Your task to perform on an android device: Open Google Chrome and click the shortcut for Amazon.com Image 0: 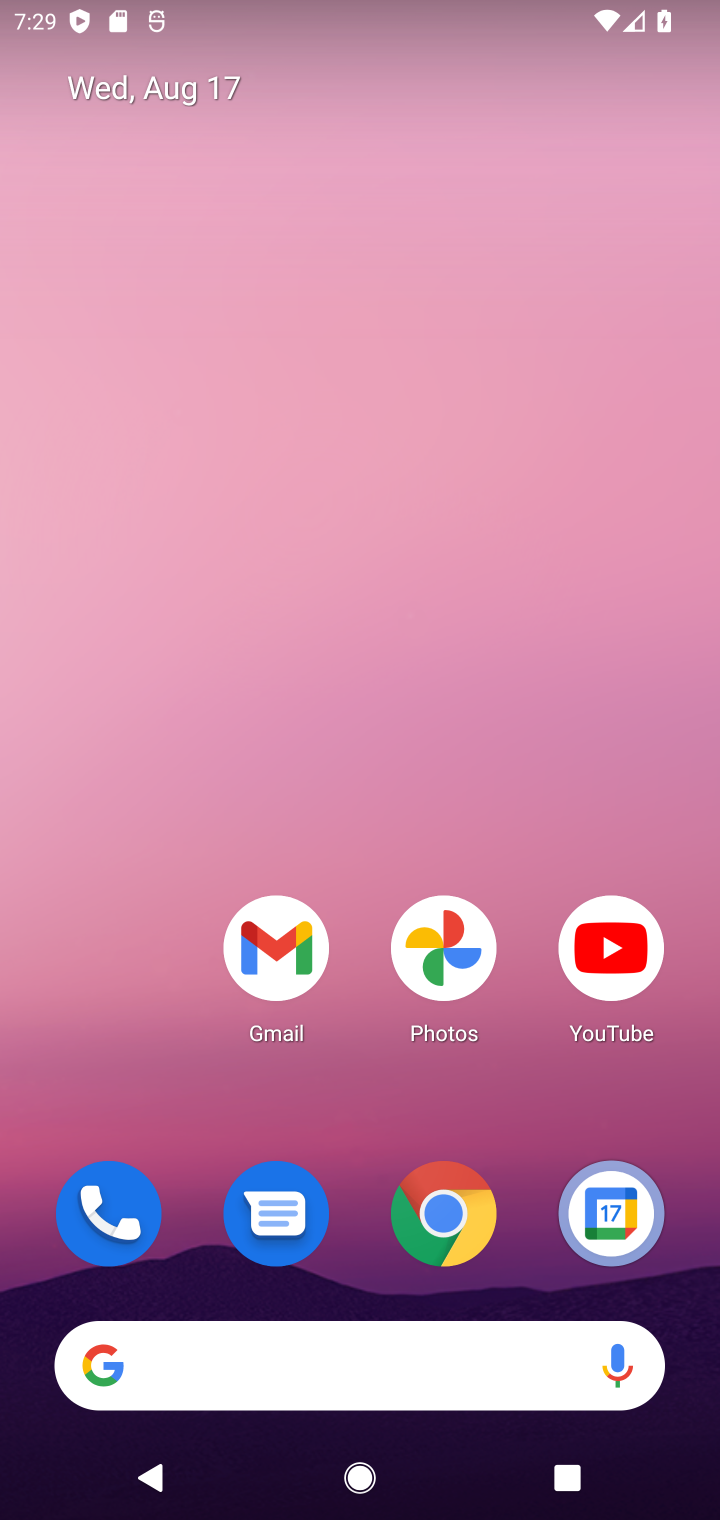
Step 0: click (383, 1255)
Your task to perform on an android device: Open Google Chrome and click the shortcut for Amazon.com Image 1: 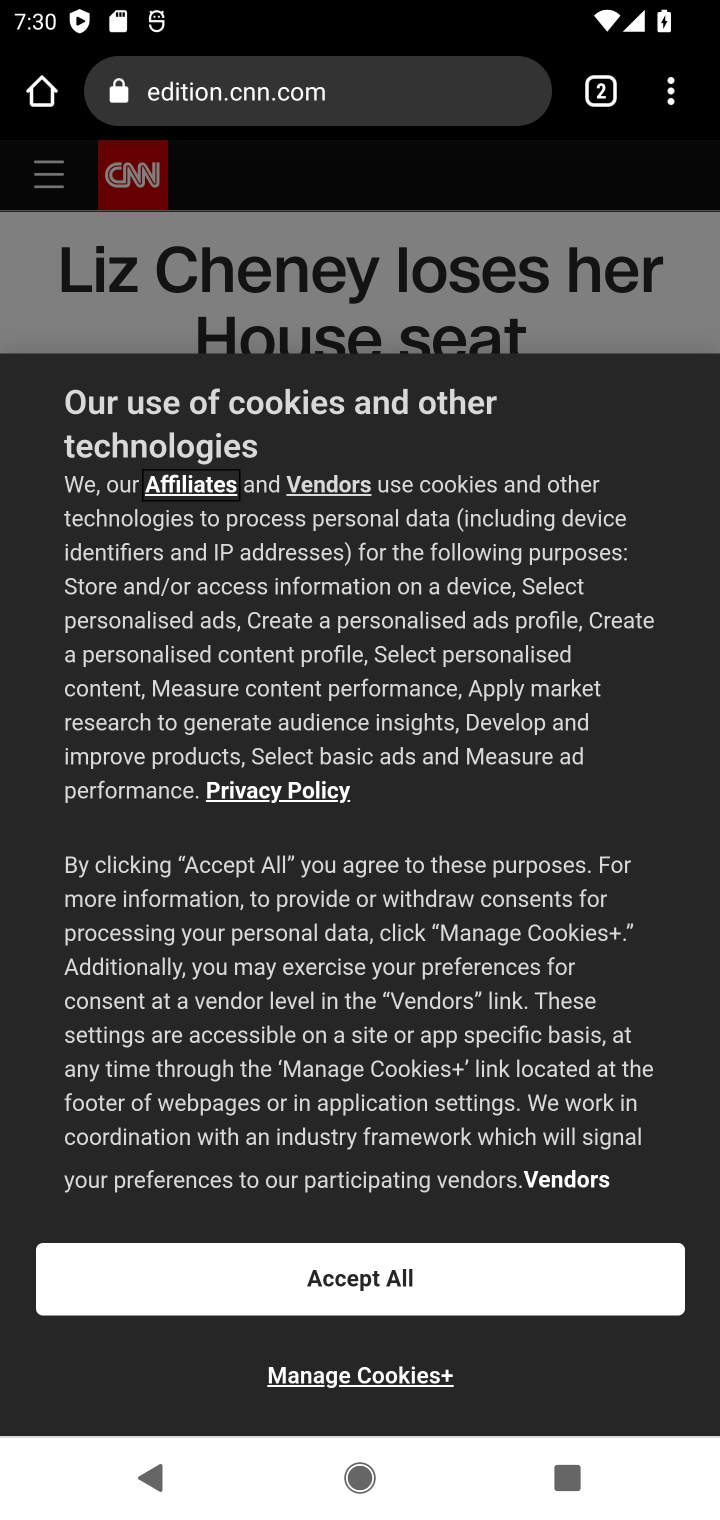
Step 1: click (339, 87)
Your task to perform on an android device: Open Google Chrome and click the shortcut for Amazon.com Image 2: 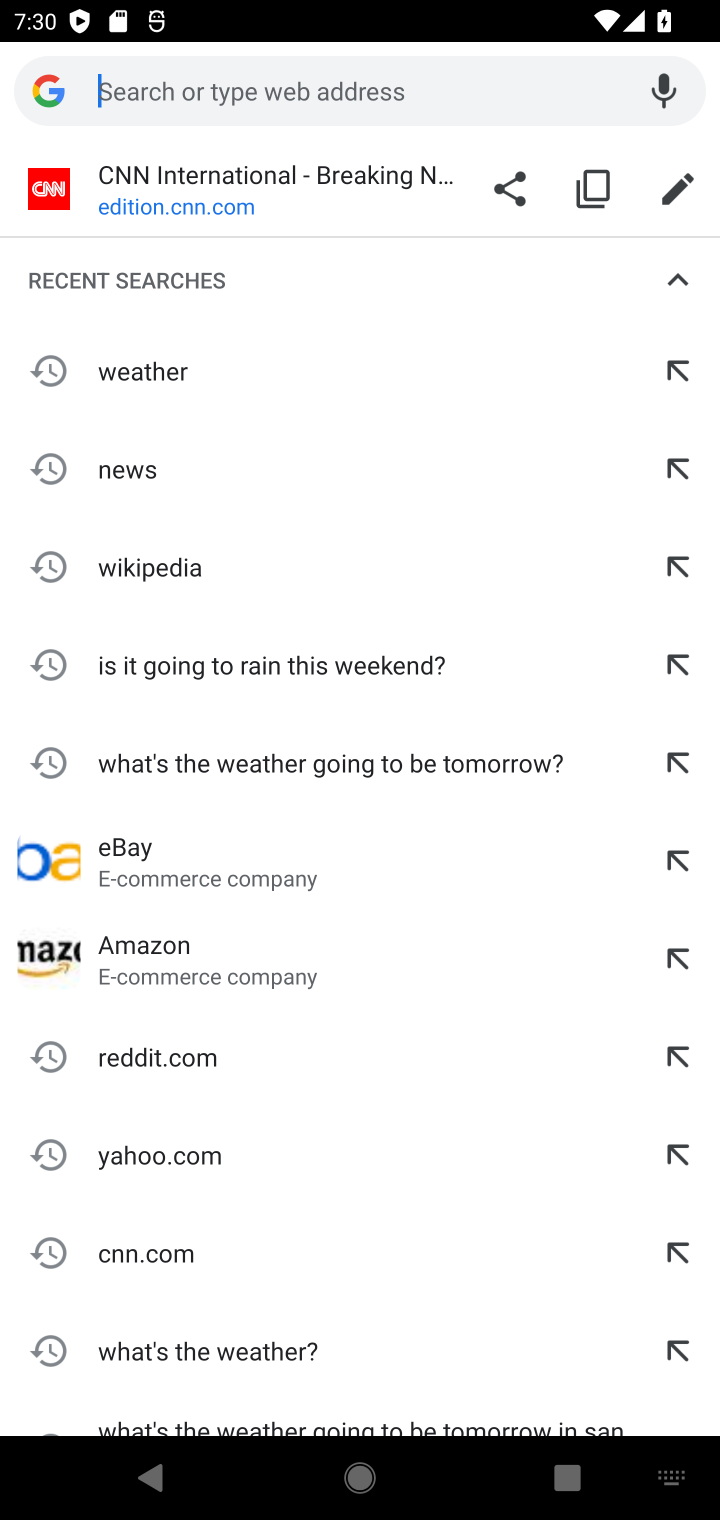
Step 2: click (225, 990)
Your task to perform on an android device: Open Google Chrome and click the shortcut for Amazon.com Image 3: 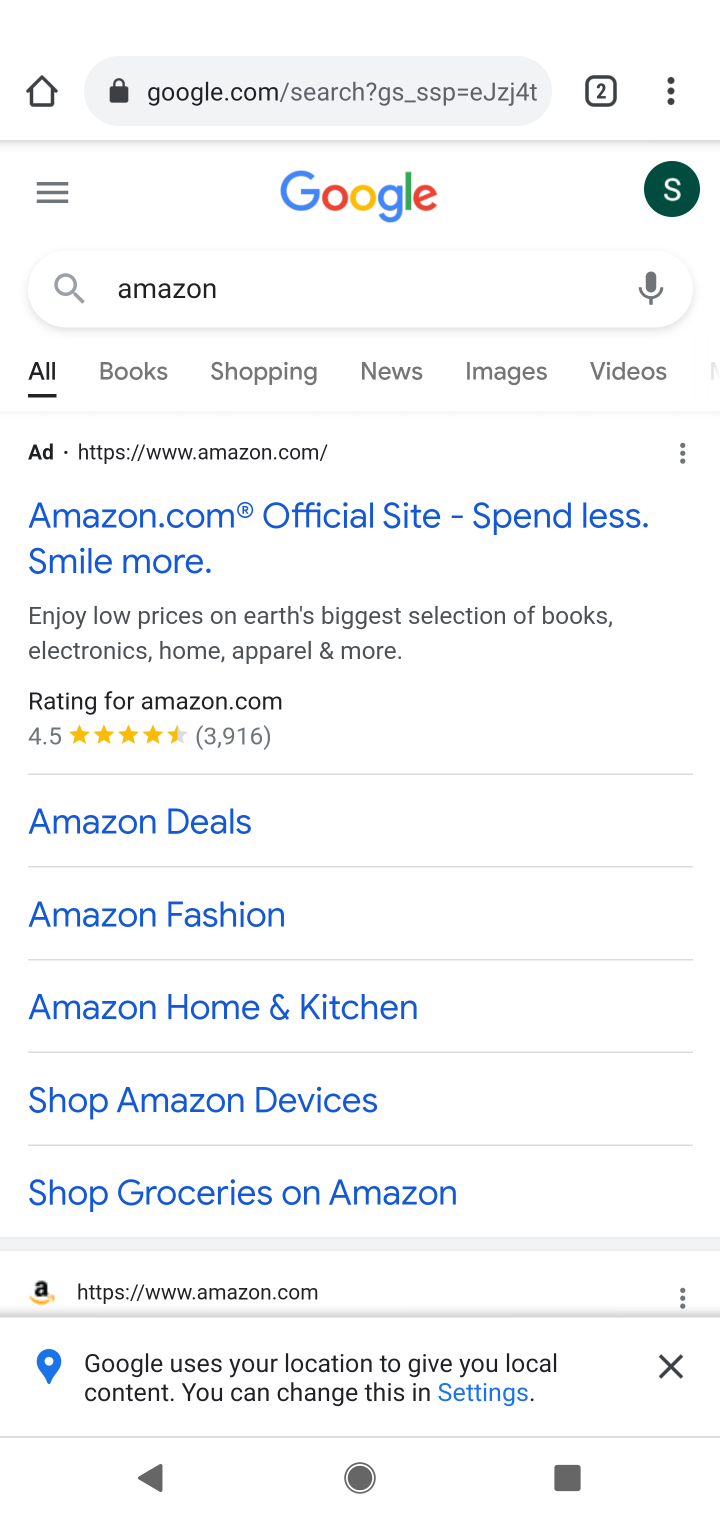
Step 3: task complete